Your task to perform on an android device: Open location settings Image 0: 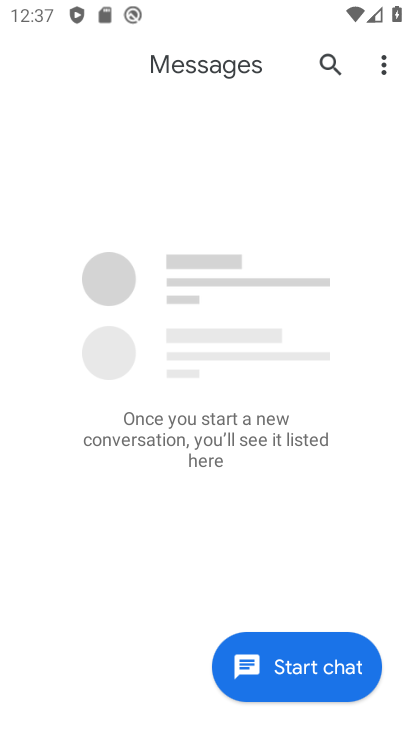
Step 0: press home button
Your task to perform on an android device: Open location settings Image 1: 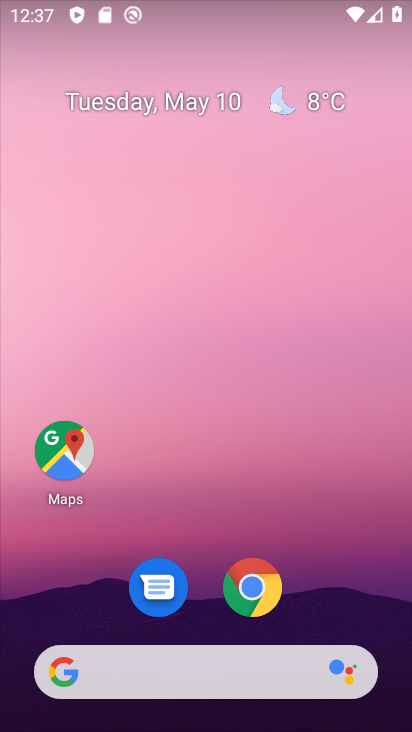
Step 1: drag from (351, 570) to (288, 0)
Your task to perform on an android device: Open location settings Image 2: 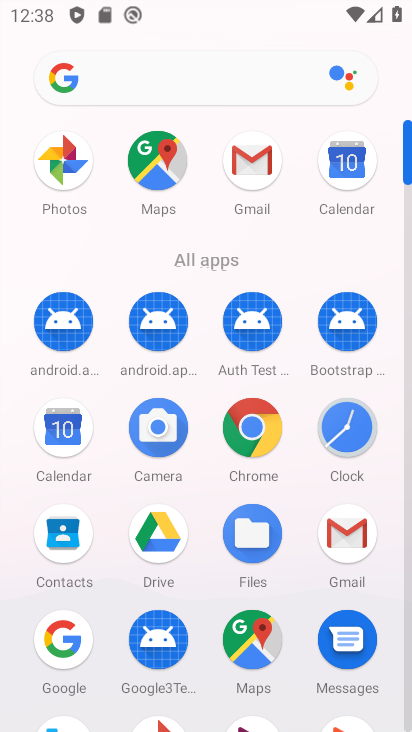
Step 2: drag from (184, 300) to (194, 69)
Your task to perform on an android device: Open location settings Image 3: 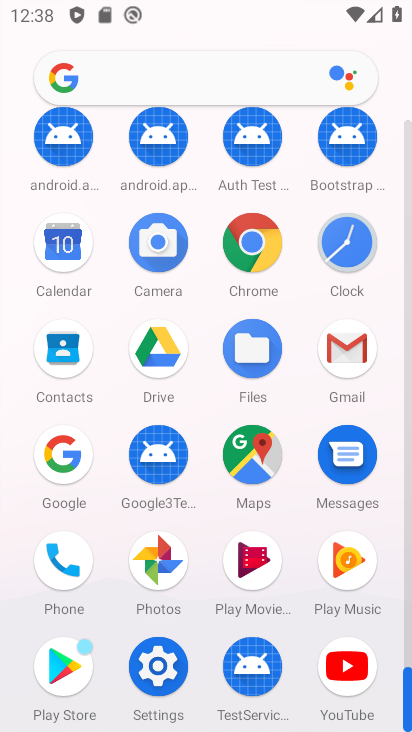
Step 3: click (154, 665)
Your task to perform on an android device: Open location settings Image 4: 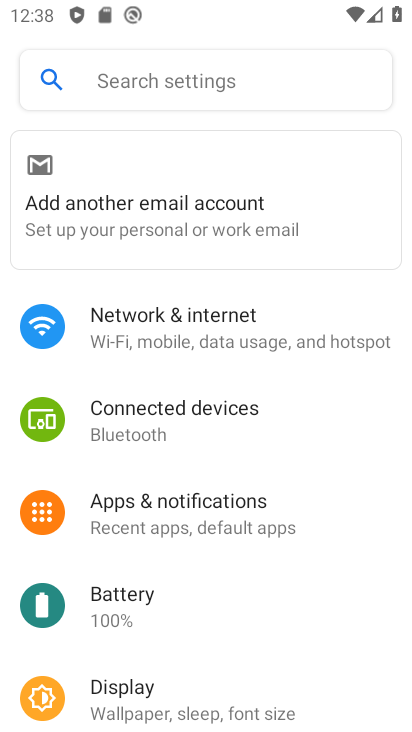
Step 4: drag from (240, 639) to (203, 318)
Your task to perform on an android device: Open location settings Image 5: 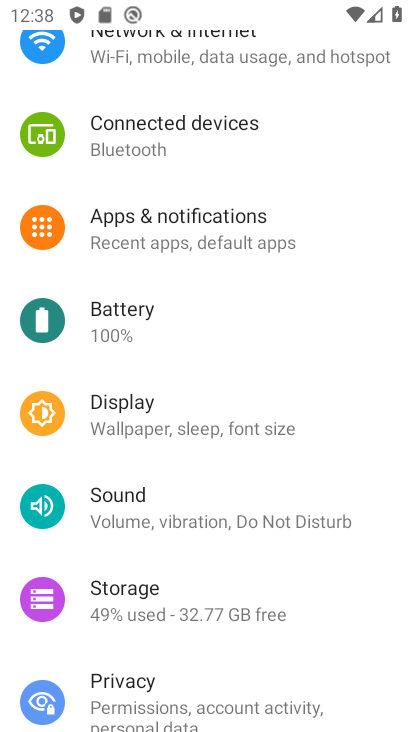
Step 5: drag from (224, 632) to (201, 277)
Your task to perform on an android device: Open location settings Image 6: 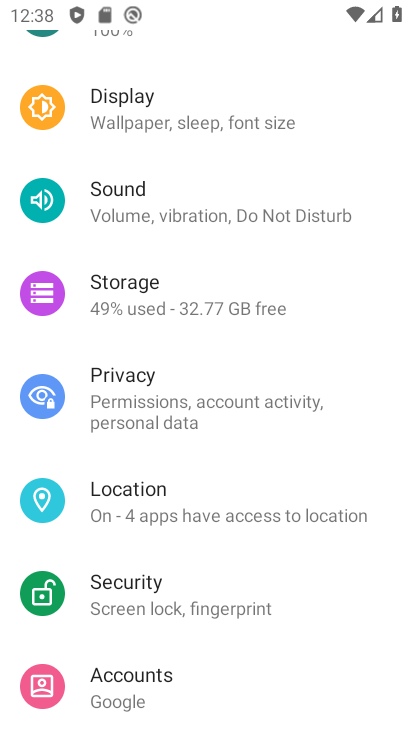
Step 6: click (187, 503)
Your task to perform on an android device: Open location settings Image 7: 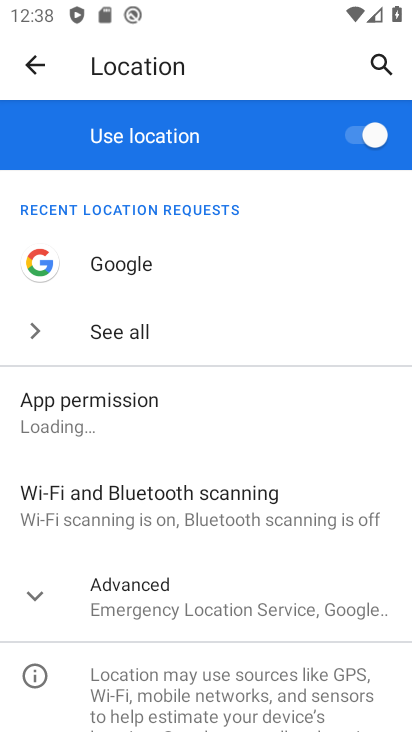
Step 7: task complete